Your task to perform on an android device: stop showing notifications on the lock screen Image 0: 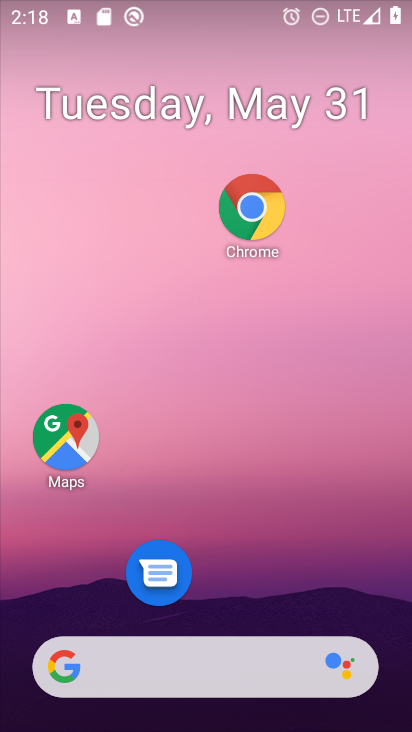
Step 0: drag from (227, 644) to (166, 128)
Your task to perform on an android device: stop showing notifications on the lock screen Image 1: 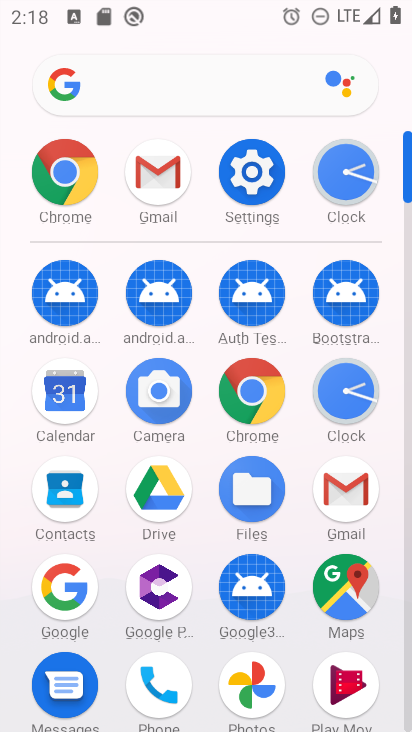
Step 1: click (240, 195)
Your task to perform on an android device: stop showing notifications on the lock screen Image 2: 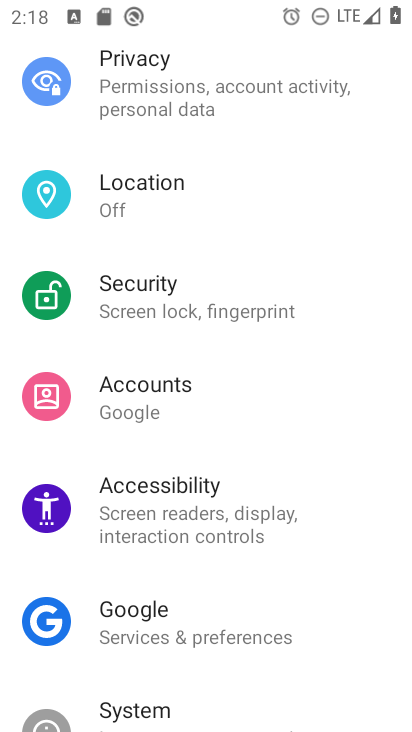
Step 2: drag from (179, 249) to (137, 637)
Your task to perform on an android device: stop showing notifications on the lock screen Image 3: 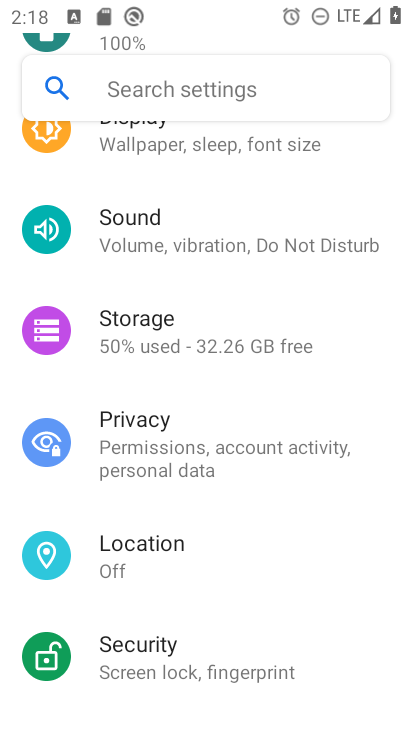
Step 3: drag from (161, 301) to (149, 606)
Your task to perform on an android device: stop showing notifications on the lock screen Image 4: 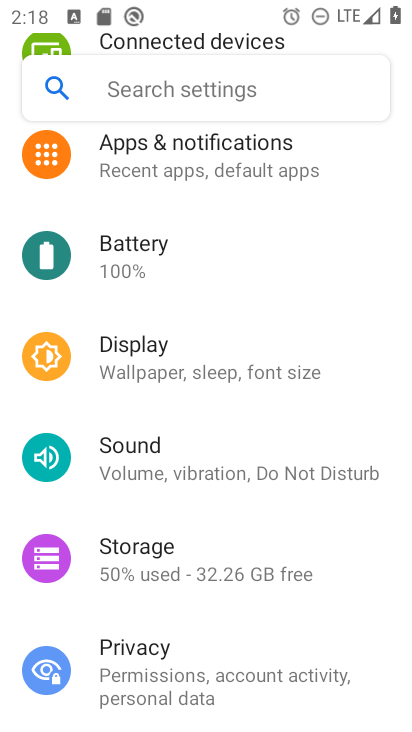
Step 4: click (173, 171)
Your task to perform on an android device: stop showing notifications on the lock screen Image 5: 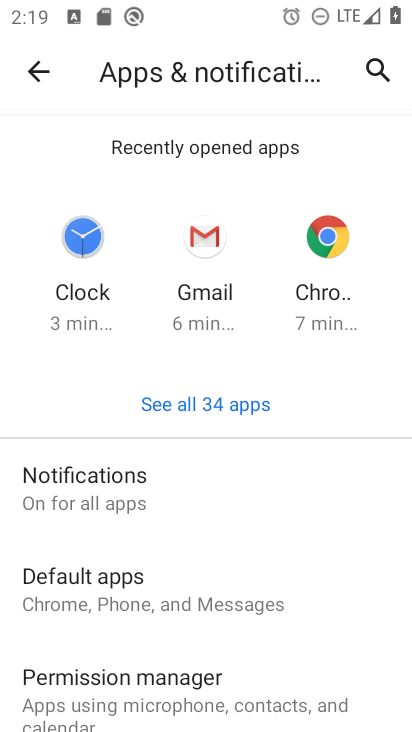
Step 5: click (127, 504)
Your task to perform on an android device: stop showing notifications on the lock screen Image 6: 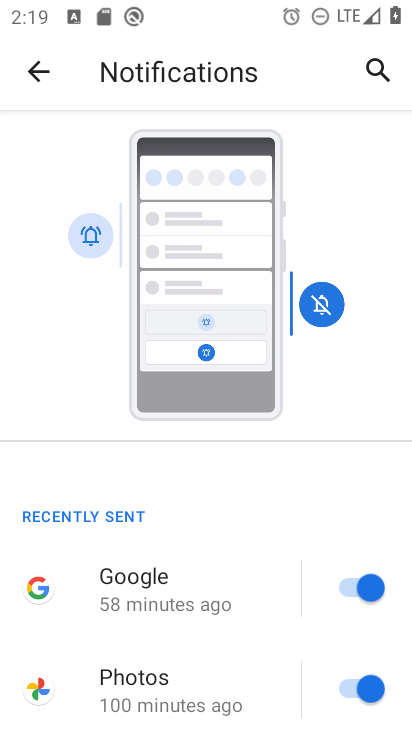
Step 6: drag from (128, 590) to (172, 312)
Your task to perform on an android device: stop showing notifications on the lock screen Image 7: 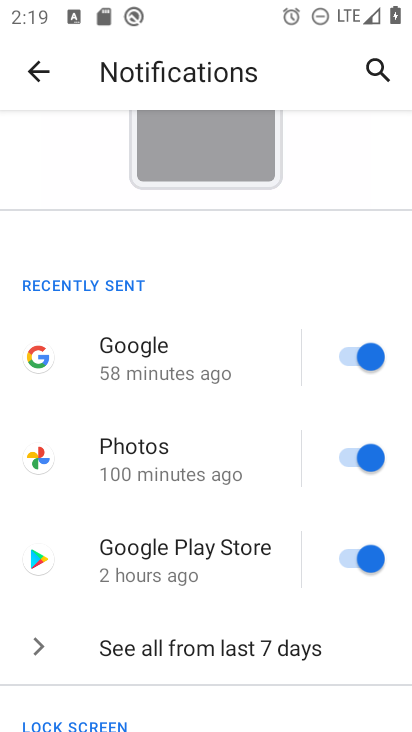
Step 7: drag from (122, 592) to (139, 388)
Your task to perform on an android device: stop showing notifications on the lock screen Image 8: 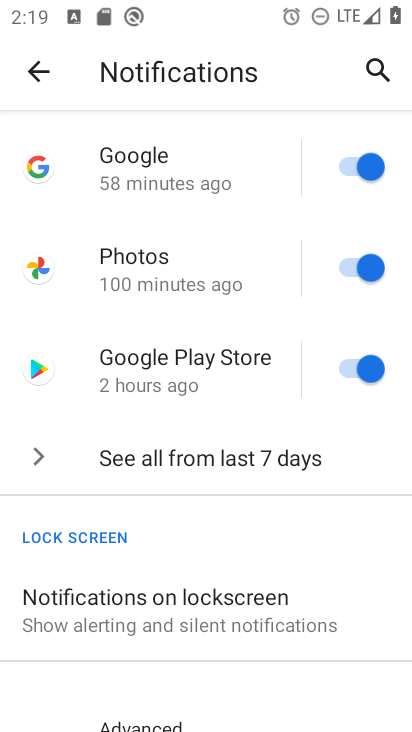
Step 8: drag from (141, 531) to (144, 376)
Your task to perform on an android device: stop showing notifications on the lock screen Image 9: 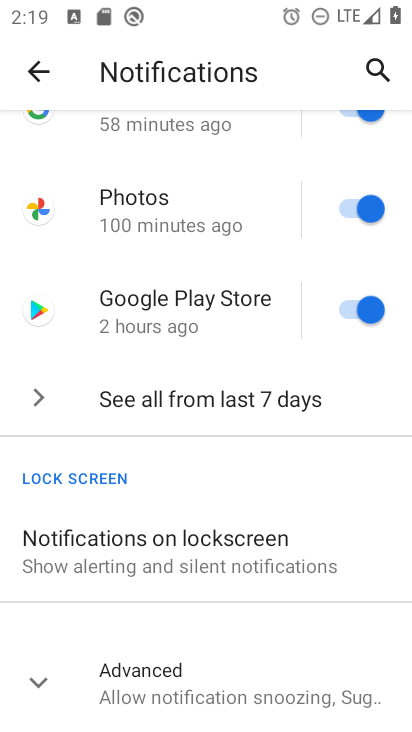
Step 9: click (163, 551)
Your task to perform on an android device: stop showing notifications on the lock screen Image 10: 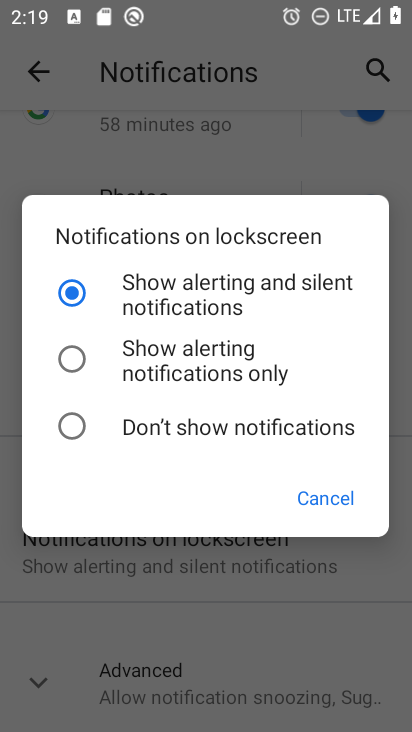
Step 10: click (140, 426)
Your task to perform on an android device: stop showing notifications on the lock screen Image 11: 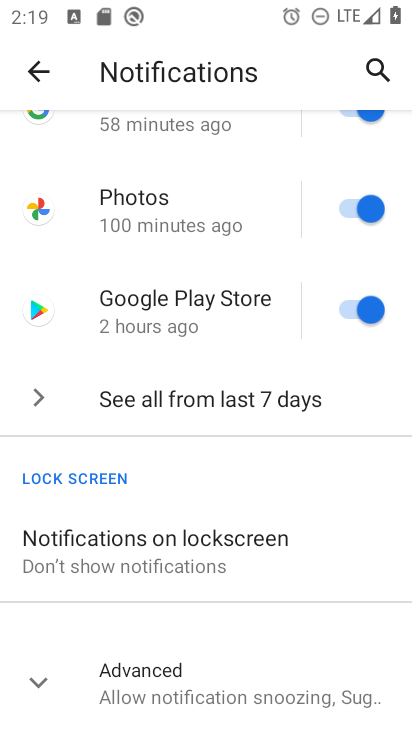
Step 11: task complete